Your task to perform on an android device: Is it going to rain today? Image 0: 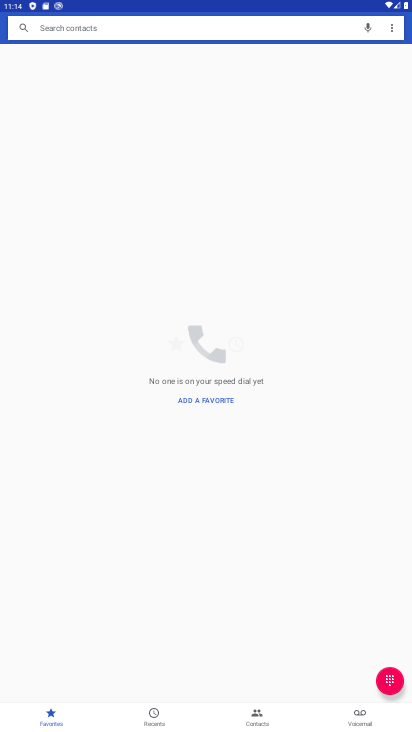
Step 0: press home button
Your task to perform on an android device: Is it going to rain today? Image 1: 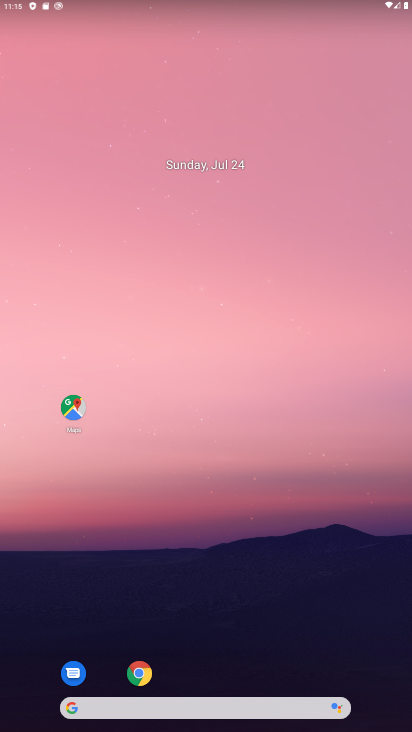
Step 1: click (70, 705)
Your task to perform on an android device: Is it going to rain today? Image 2: 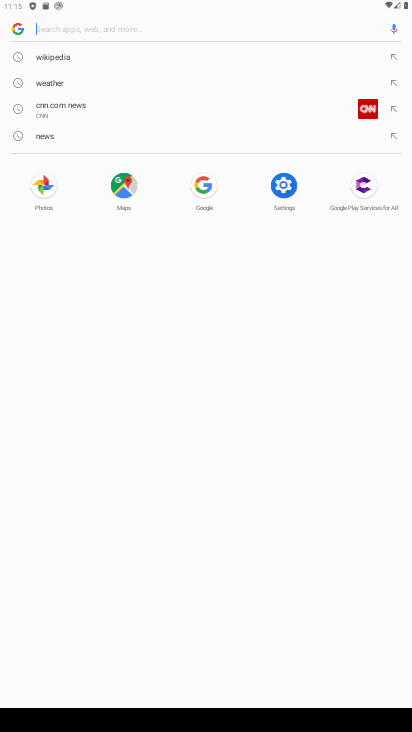
Step 2: type "Is it going to rain today?"
Your task to perform on an android device: Is it going to rain today? Image 3: 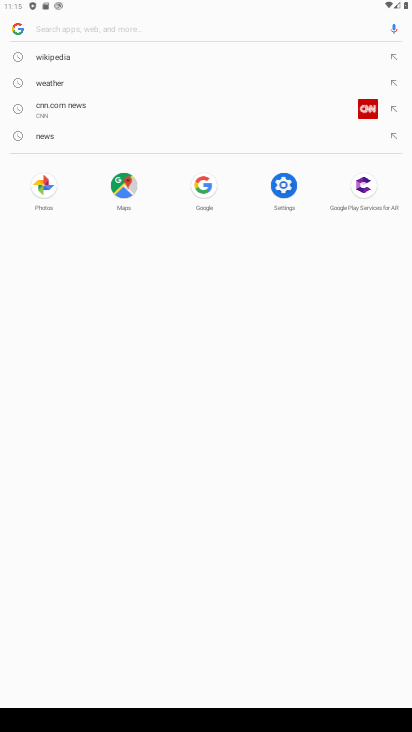
Step 3: click (55, 28)
Your task to perform on an android device: Is it going to rain today? Image 4: 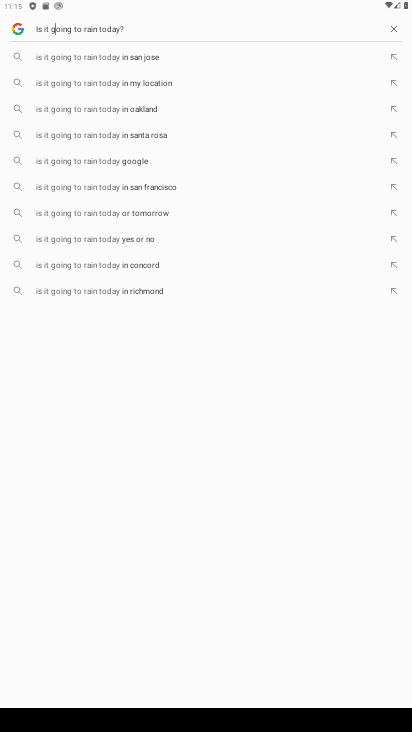
Step 4: click (55, 30)
Your task to perform on an android device: Is it going to rain today? Image 5: 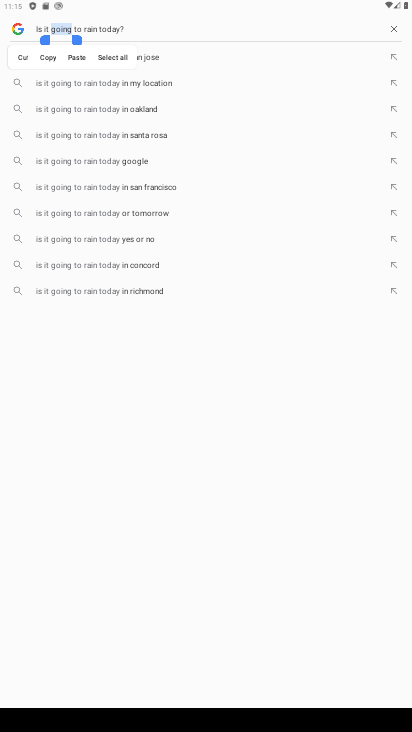
Step 5: press enter
Your task to perform on an android device: Is it going to rain today? Image 6: 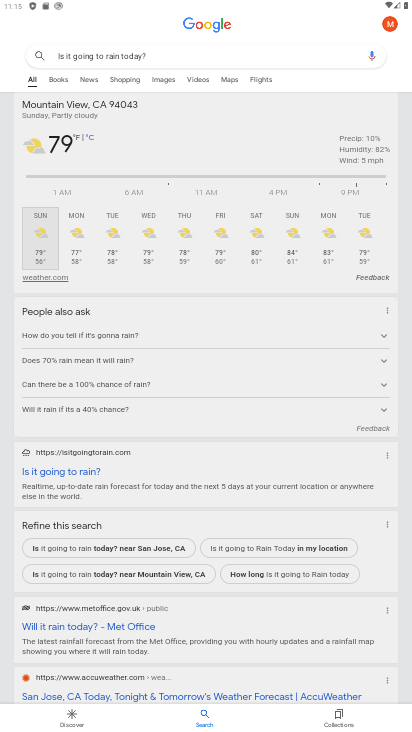
Step 6: task complete